Your task to perform on an android device: turn off sleep mode Image 0: 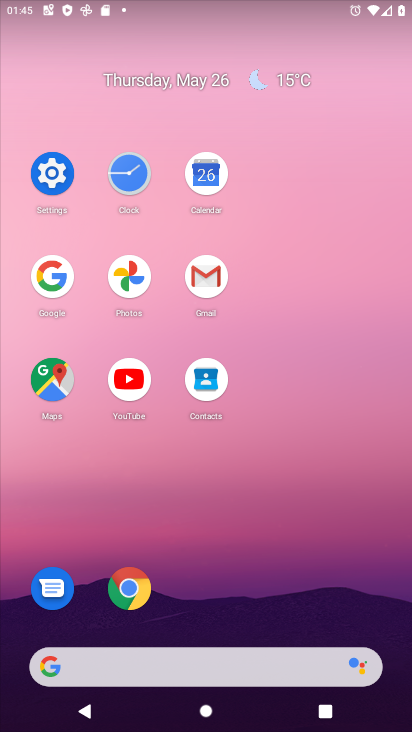
Step 0: click (58, 189)
Your task to perform on an android device: turn off sleep mode Image 1: 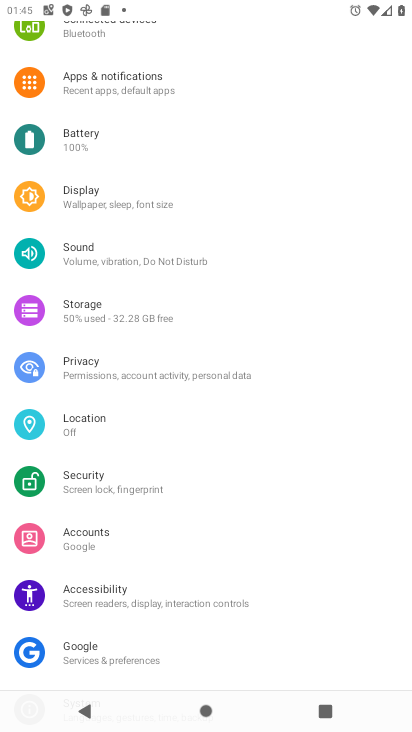
Step 1: click (150, 209)
Your task to perform on an android device: turn off sleep mode Image 2: 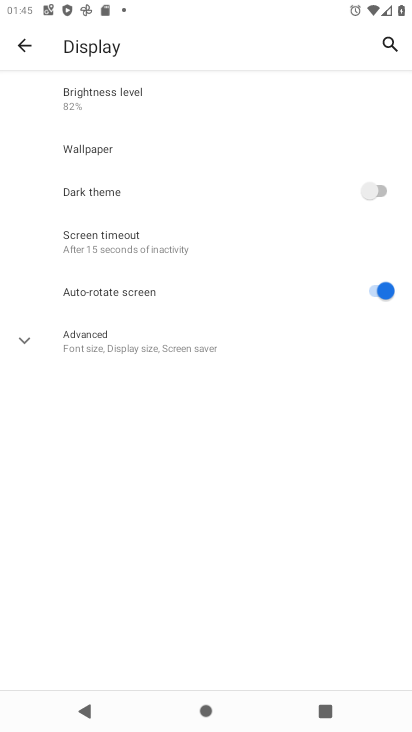
Step 2: click (147, 247)
Your task to perform on an android device: turn off sleep mode Image 3: 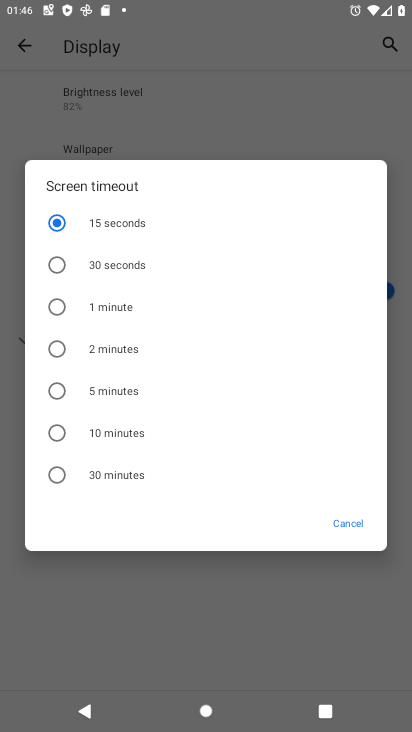
Step 3: task complete